Your task to perform on an android device: turn on javascript in the chrome app Image 0: 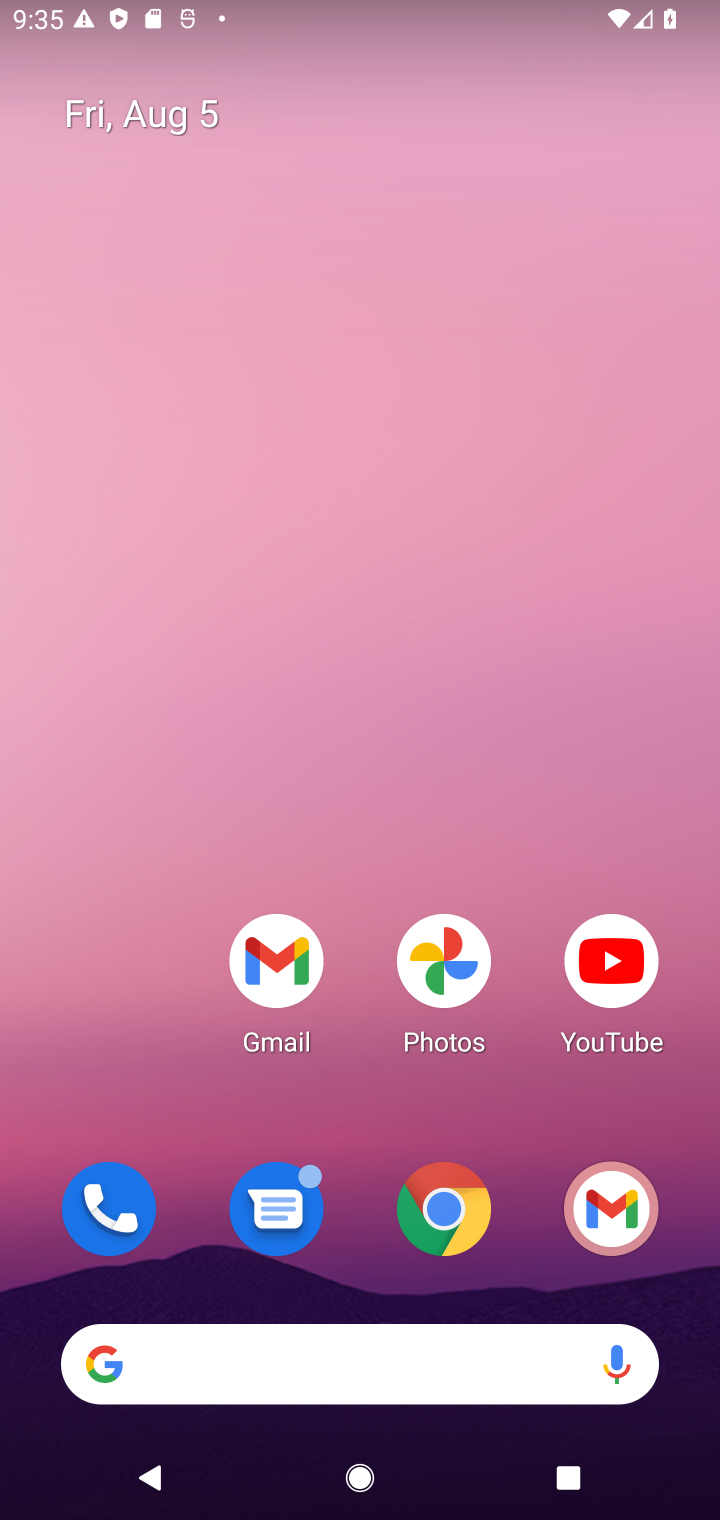
Step 0: drag from (393, 754) to (396, 663)
Your task to perform on an android device: turn on javascript in the chrome app Image 1: 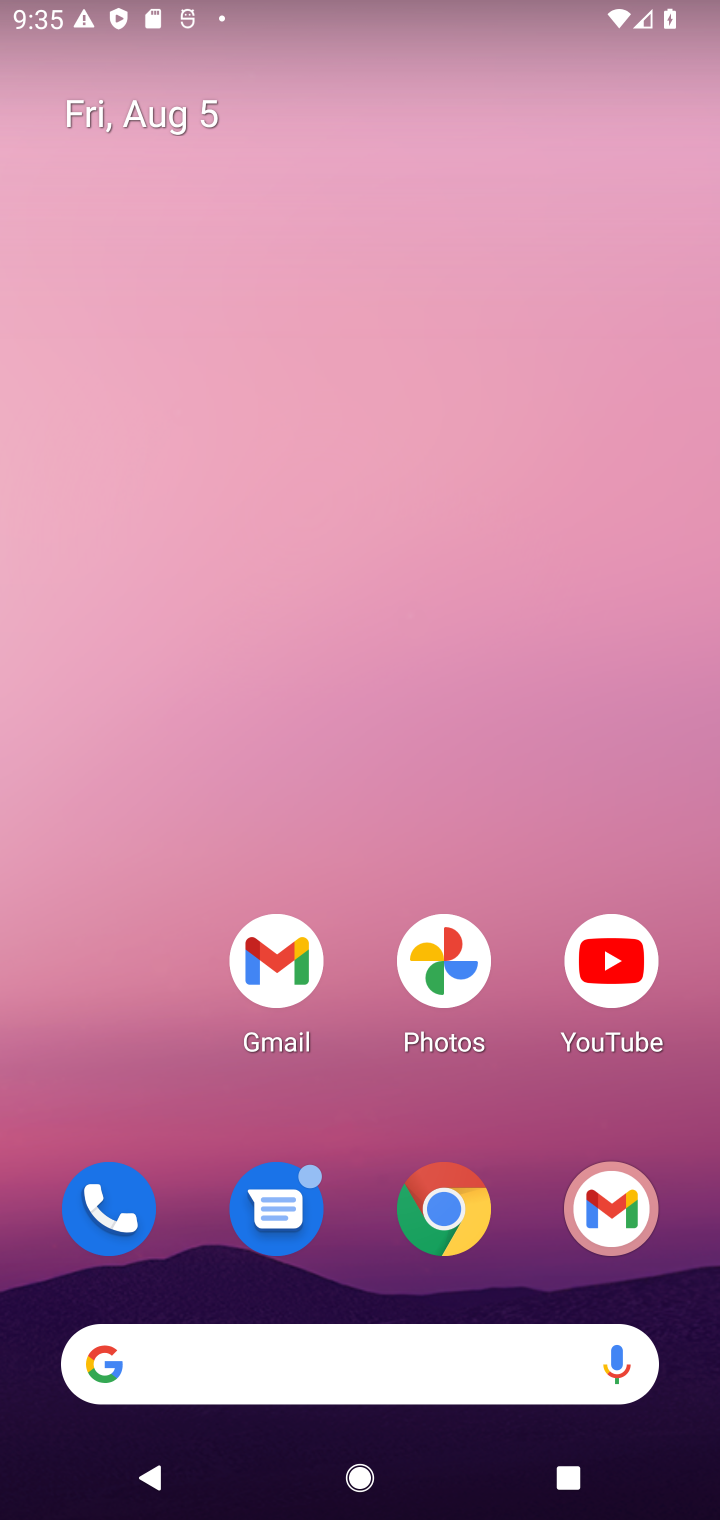
Step 1: click (403, 1222)
Your task to perform on an android device: turn on javascript in the chrome app Image 2: 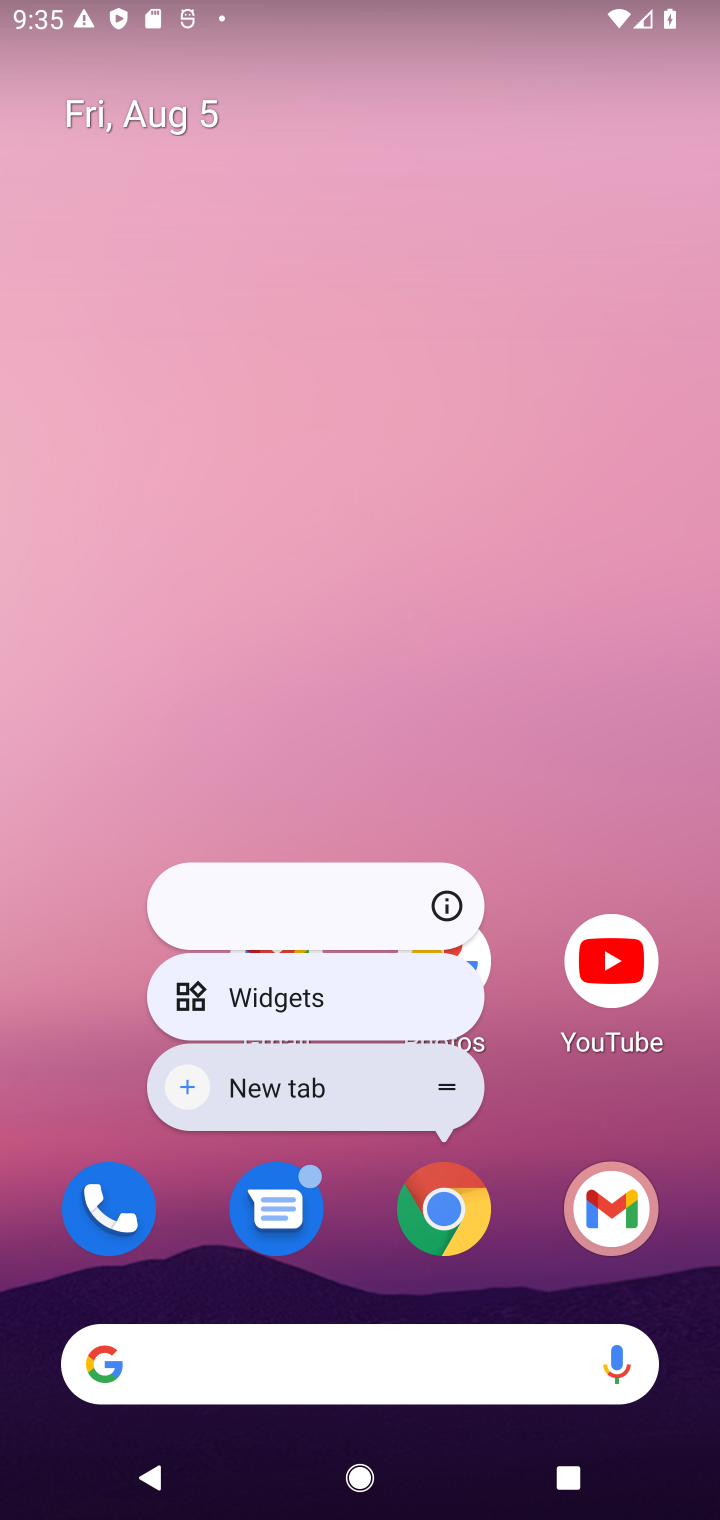
Step 2: click (442, 918)
Your task to perform on an android device: turn on javascript in the chrome app Image 3: 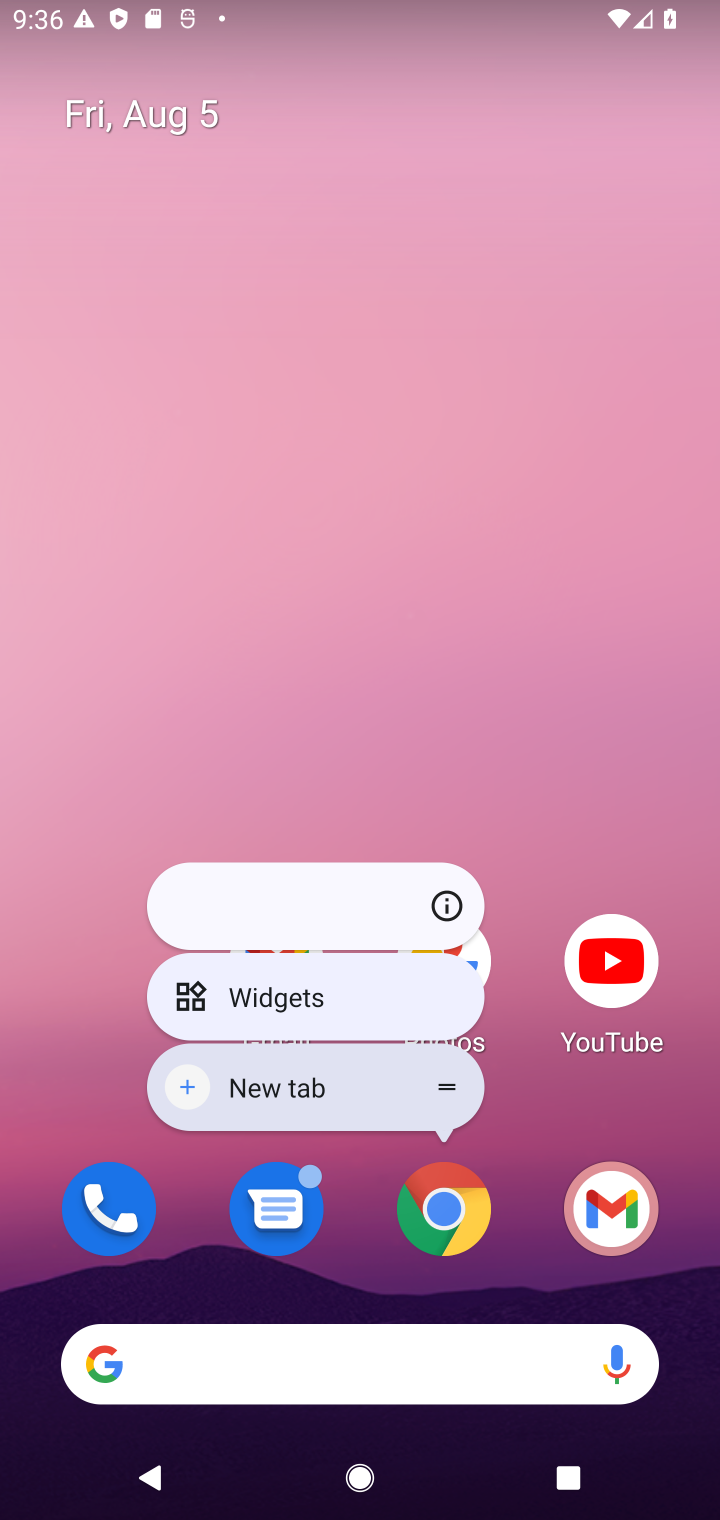
Step 3: click (451, 916)
Your task to perform on an android device: turn on javascript in the chrome app Image 4: 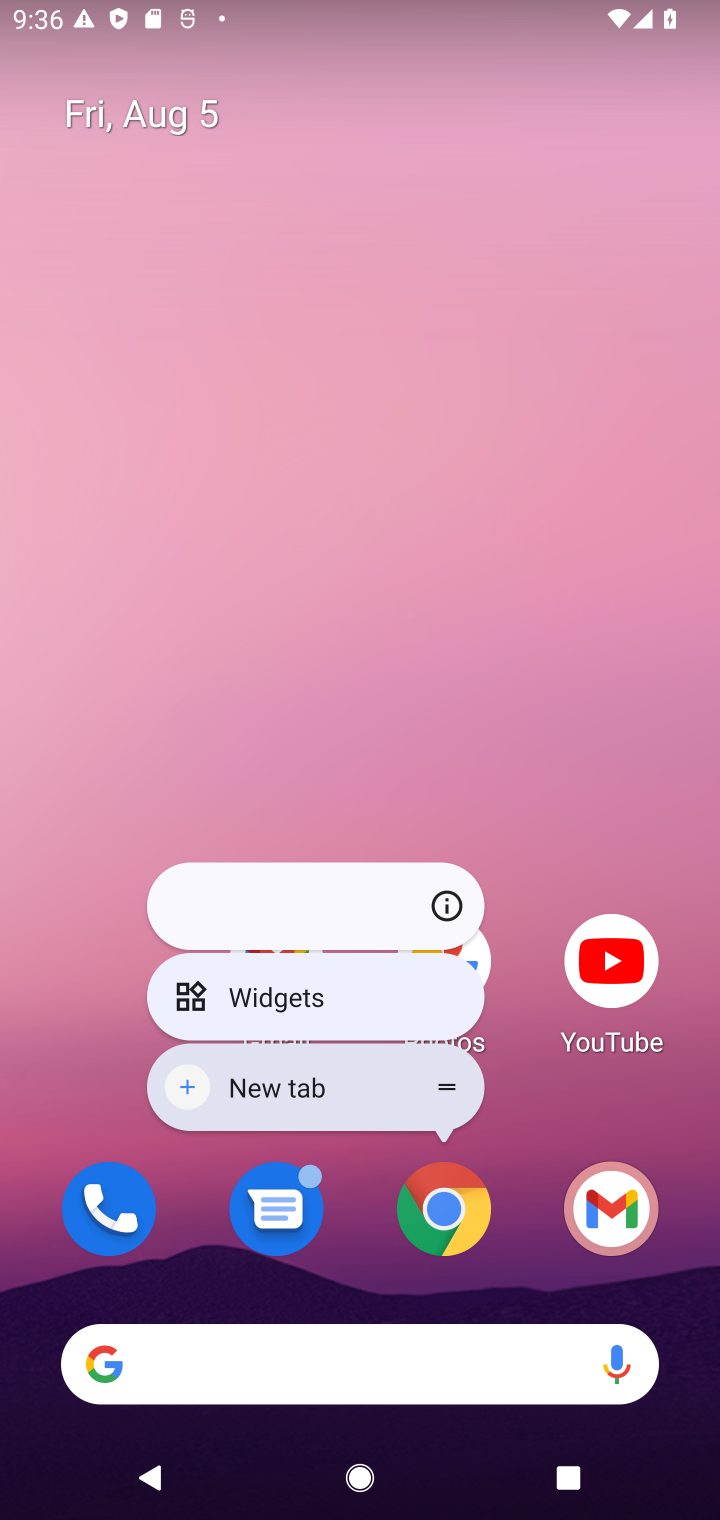
Step 4: click (440, 911)
Your task to perform on an android device: turn on javascript in the chrome app Image 5: 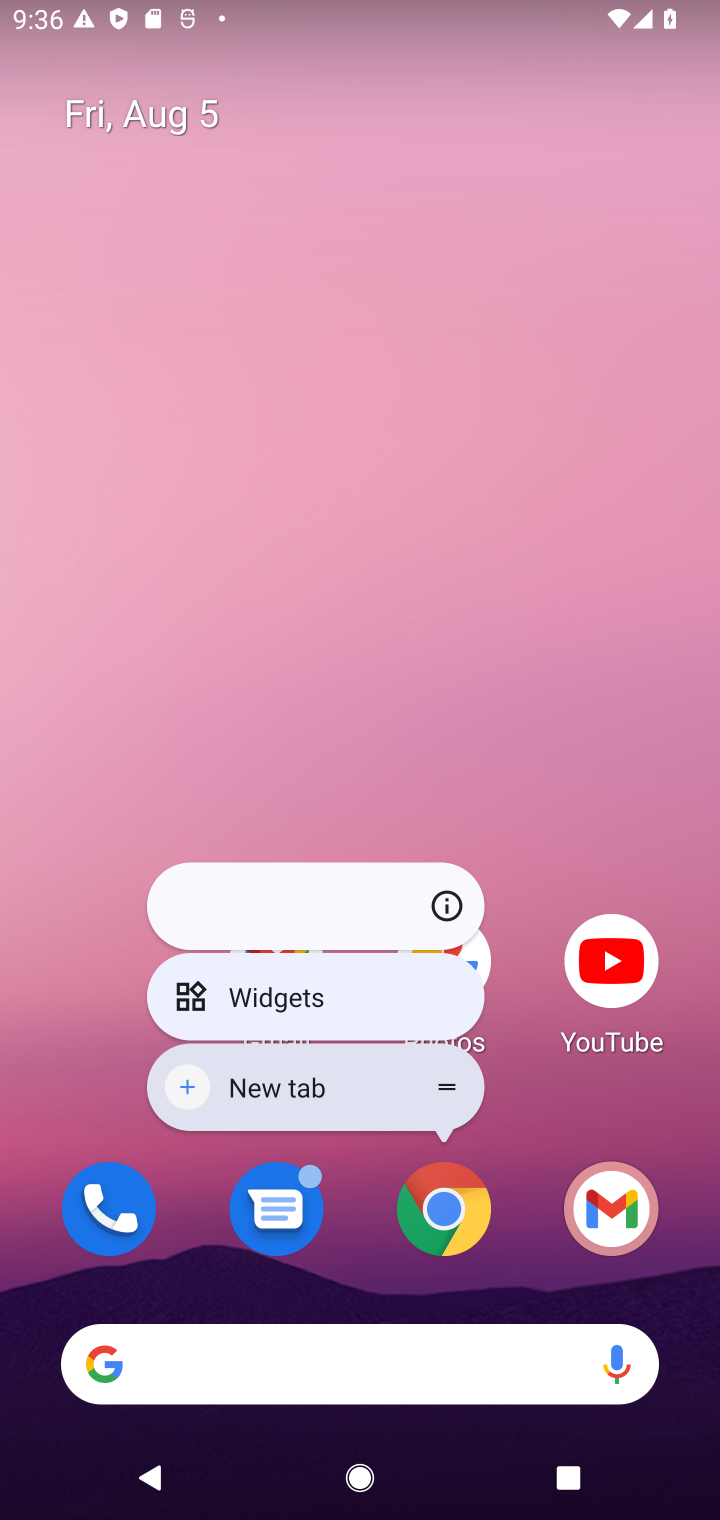
Step 5: click (437, 901)
Your task to perform on an android device: turn on javascript in the chrome app Image 6: 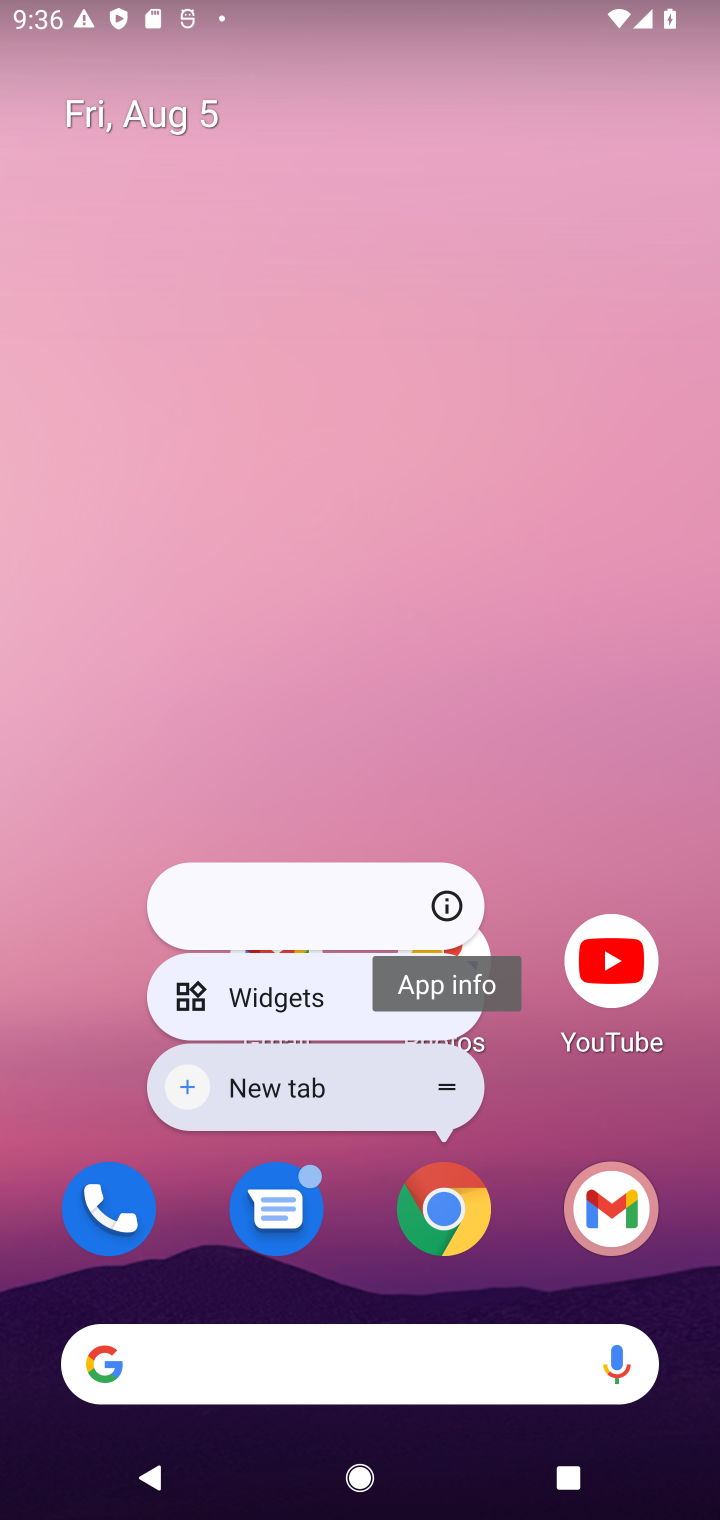
Step 6: click (439, 903)
Your task to perform on an android device: turn on javascript in the chrome app Image 7: 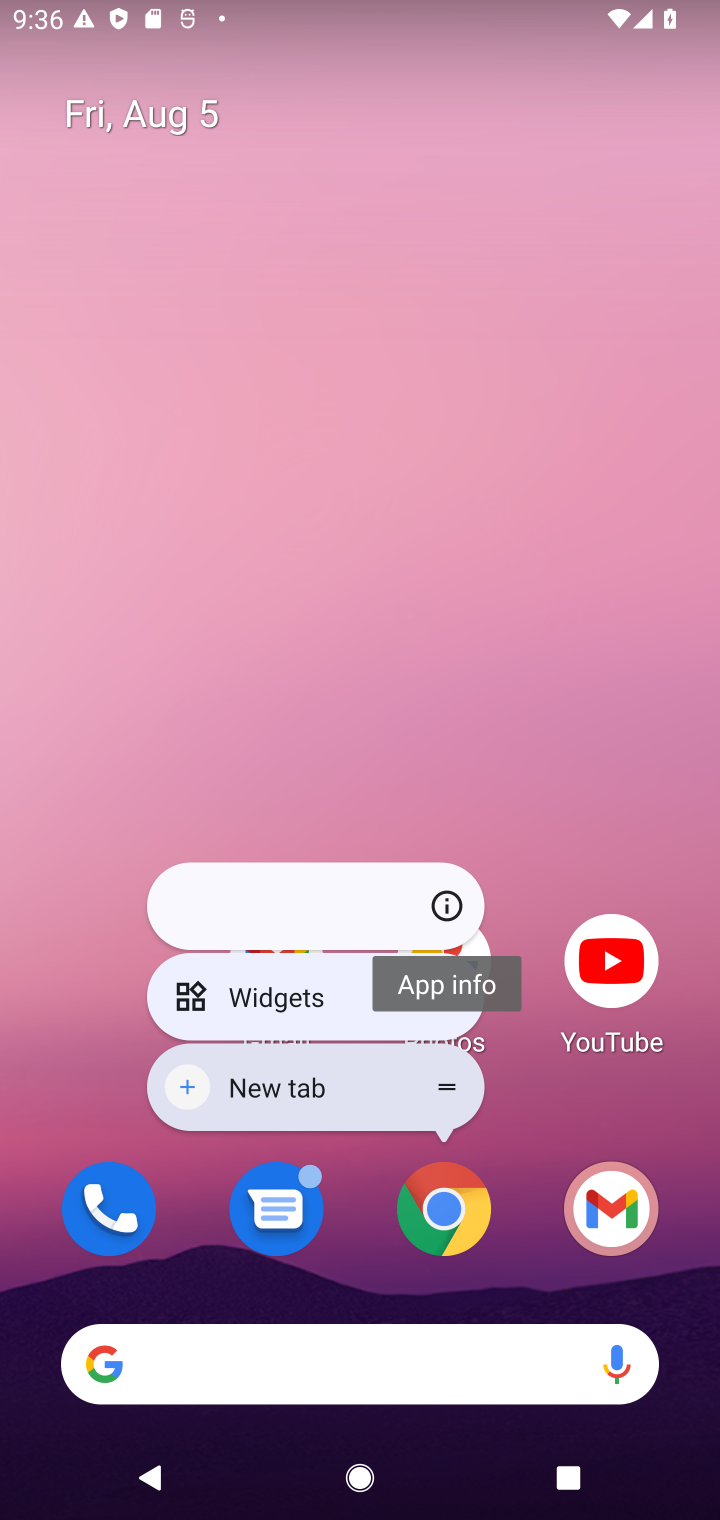
Step 7: click (439, 903)
Your task to perform on an android device: turn on javascript in the chrome app Image 8: 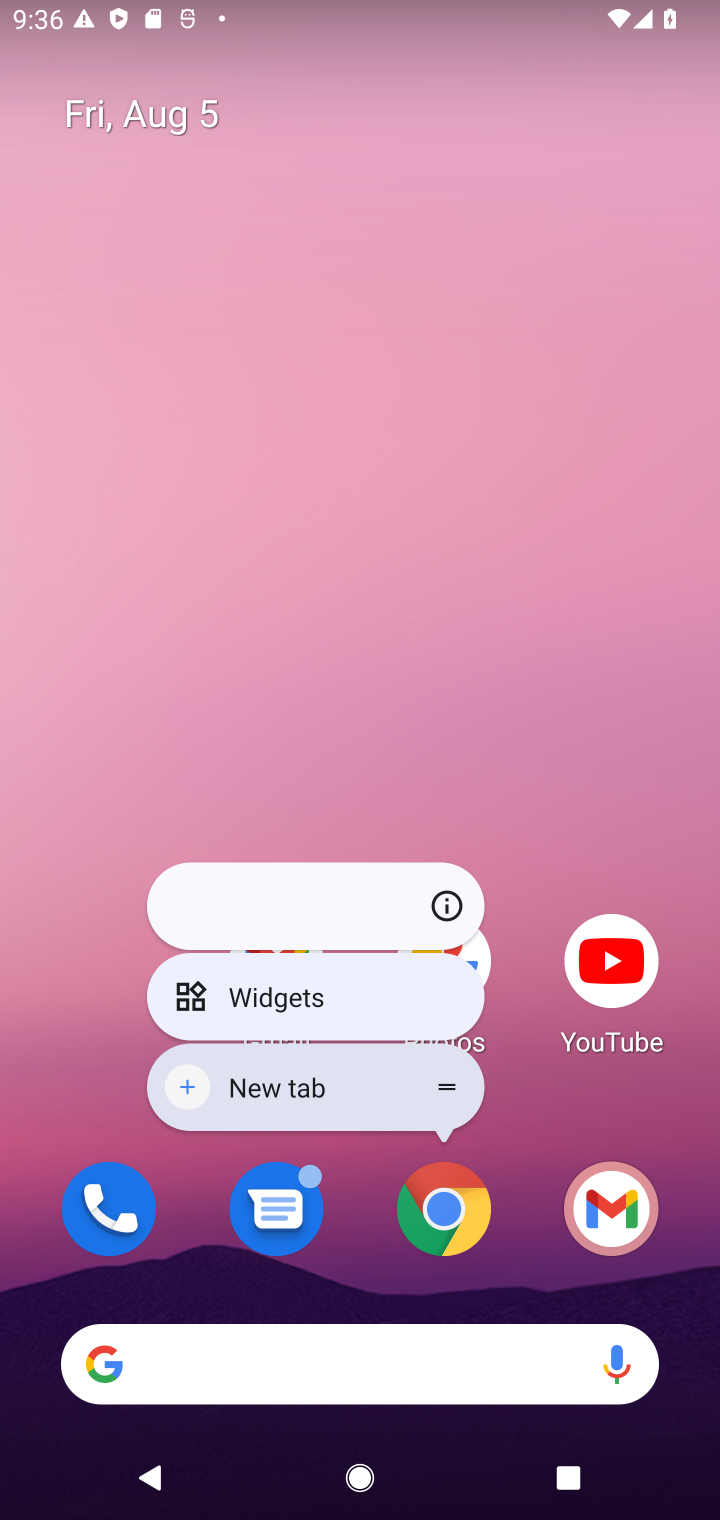
Step 8: click (439, 903)
Your task to perform on an android device: turn on javascript in the chrome app Image 9: 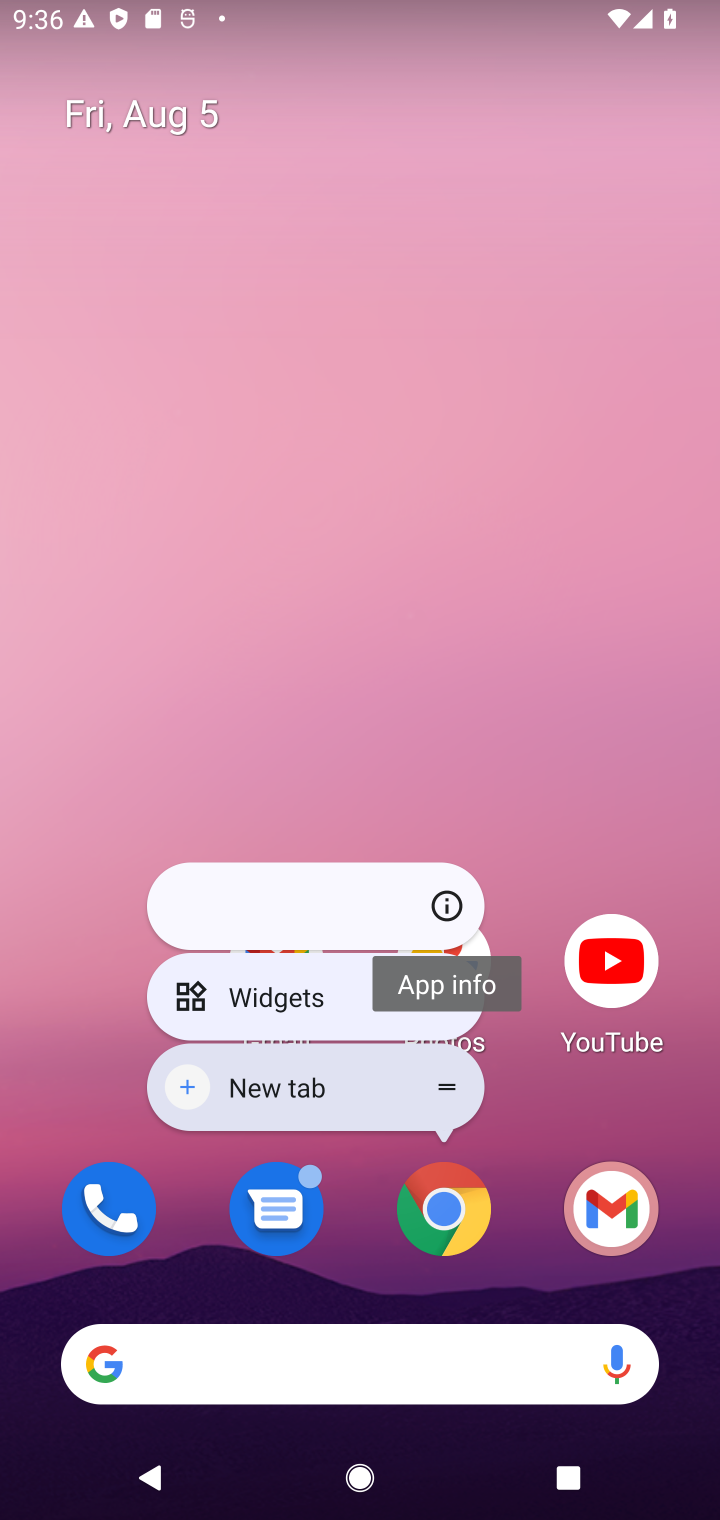
Step 9: click (452, 895)
Your task to perform on an android device: turn on javascript in the chrome app Image 10: 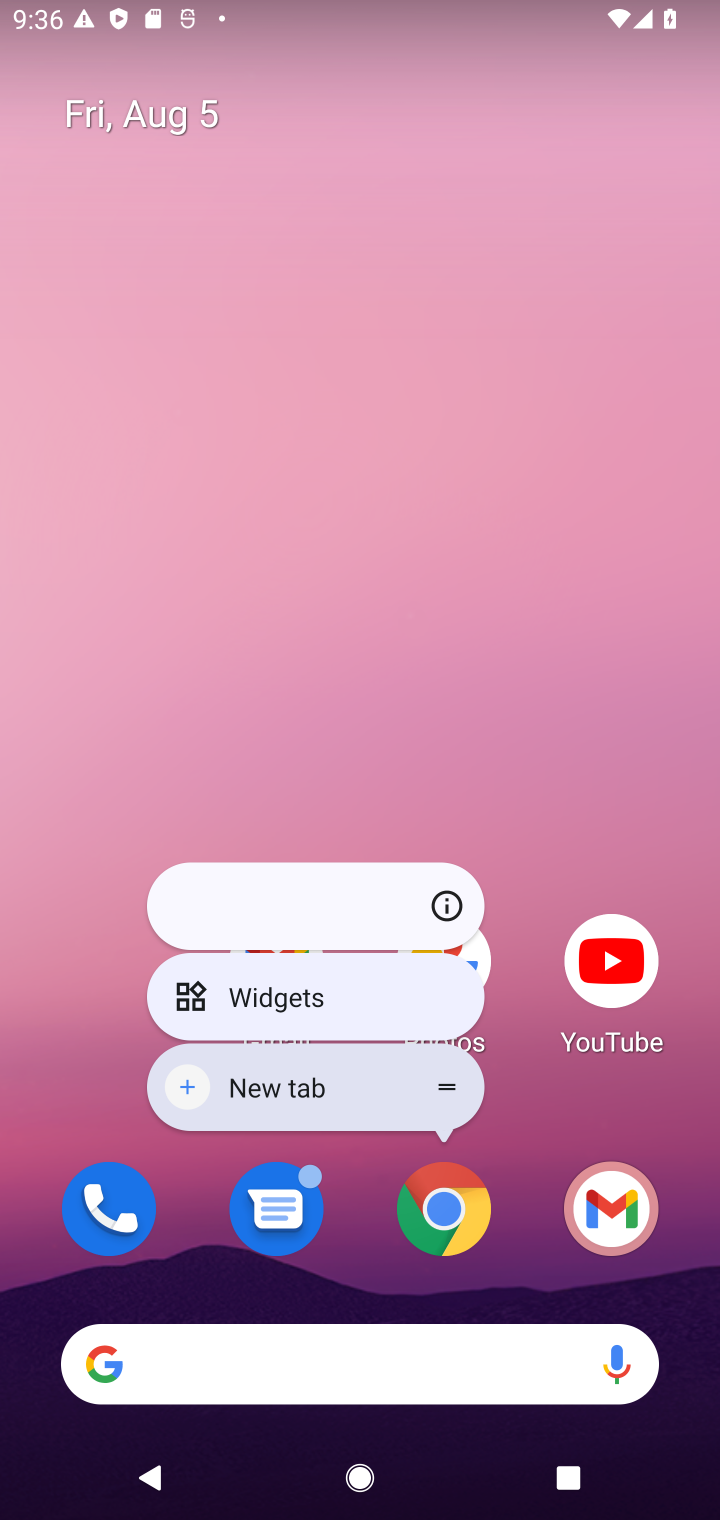
Step 10: click (439, 895)
Your task to perform on an android device: turn on javascript in the chrome app Image 11: 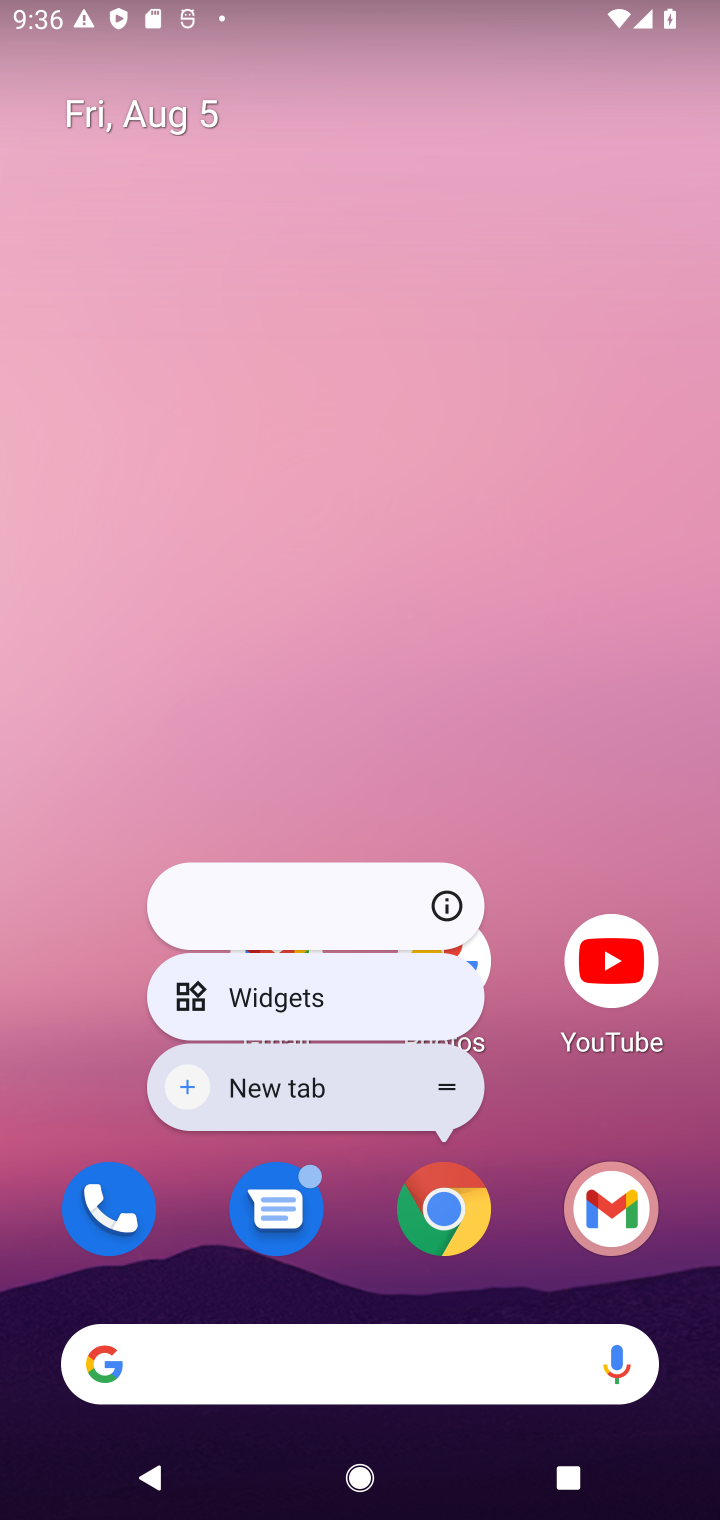
Step 11: click (461, 894)
Your task to perform on an android device: turn on javascript in the chrome app Image 12: 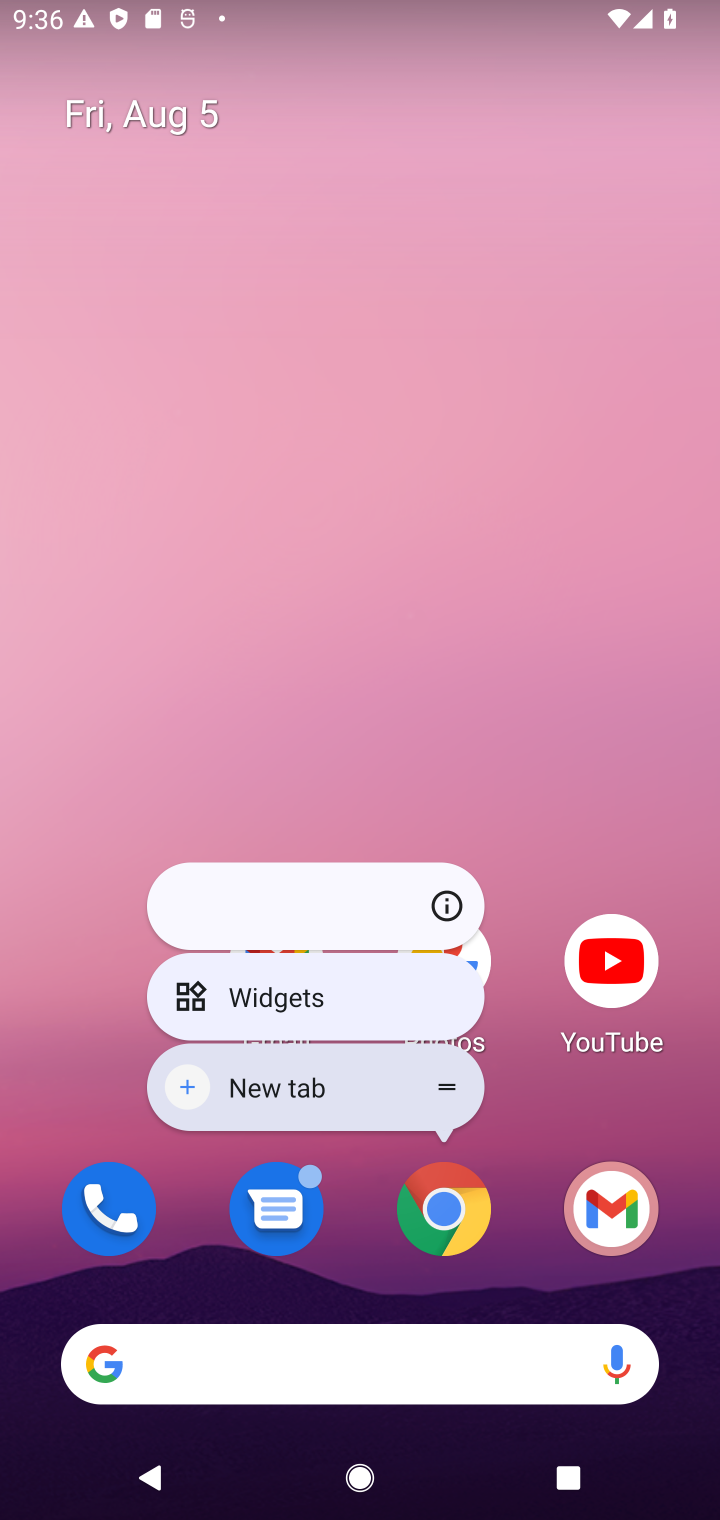
Step 12: click (453, 892)
Your task to perform on an android device: turn on javascript in the chrome app Image 13: 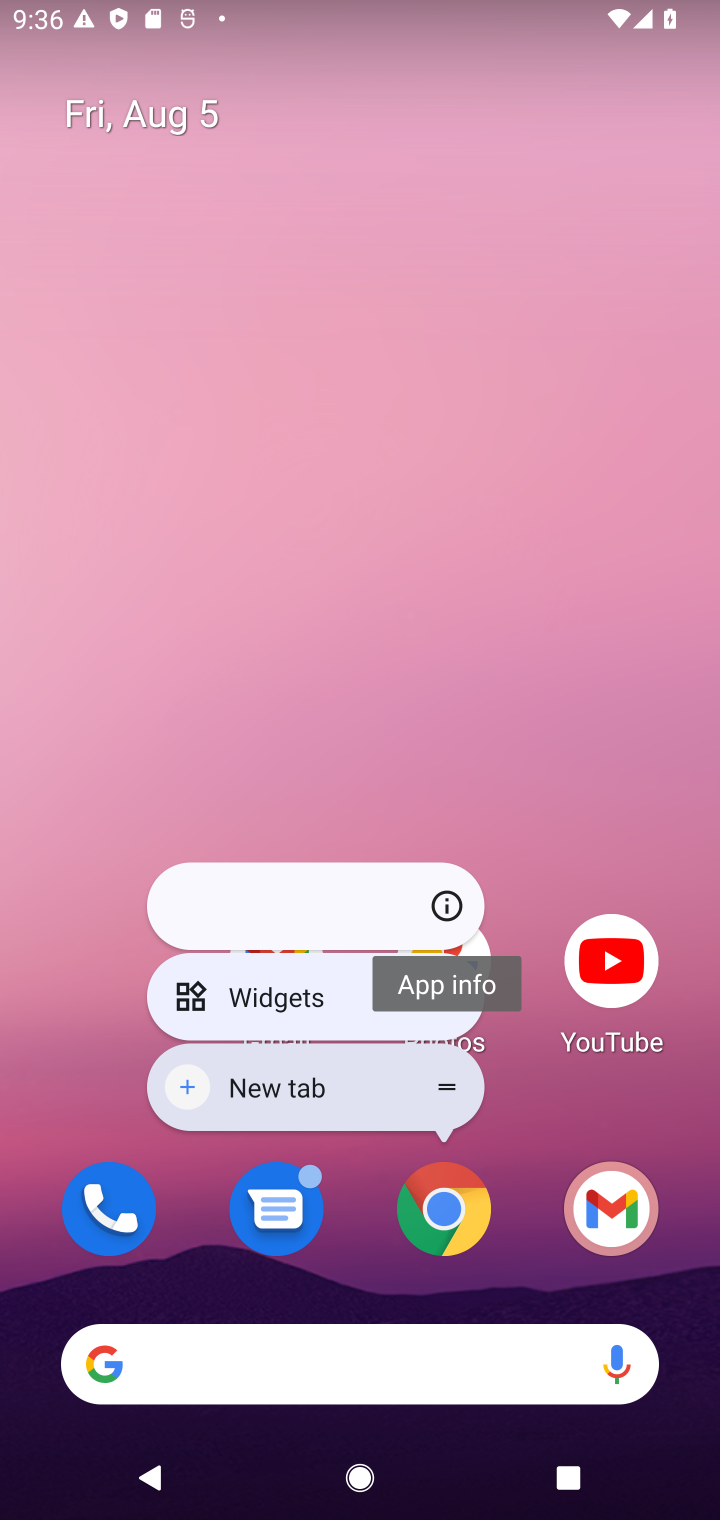
Step 13: click (446, 892)
Your task to perform on an android device: turn on javascript in the chrome app Image 14: 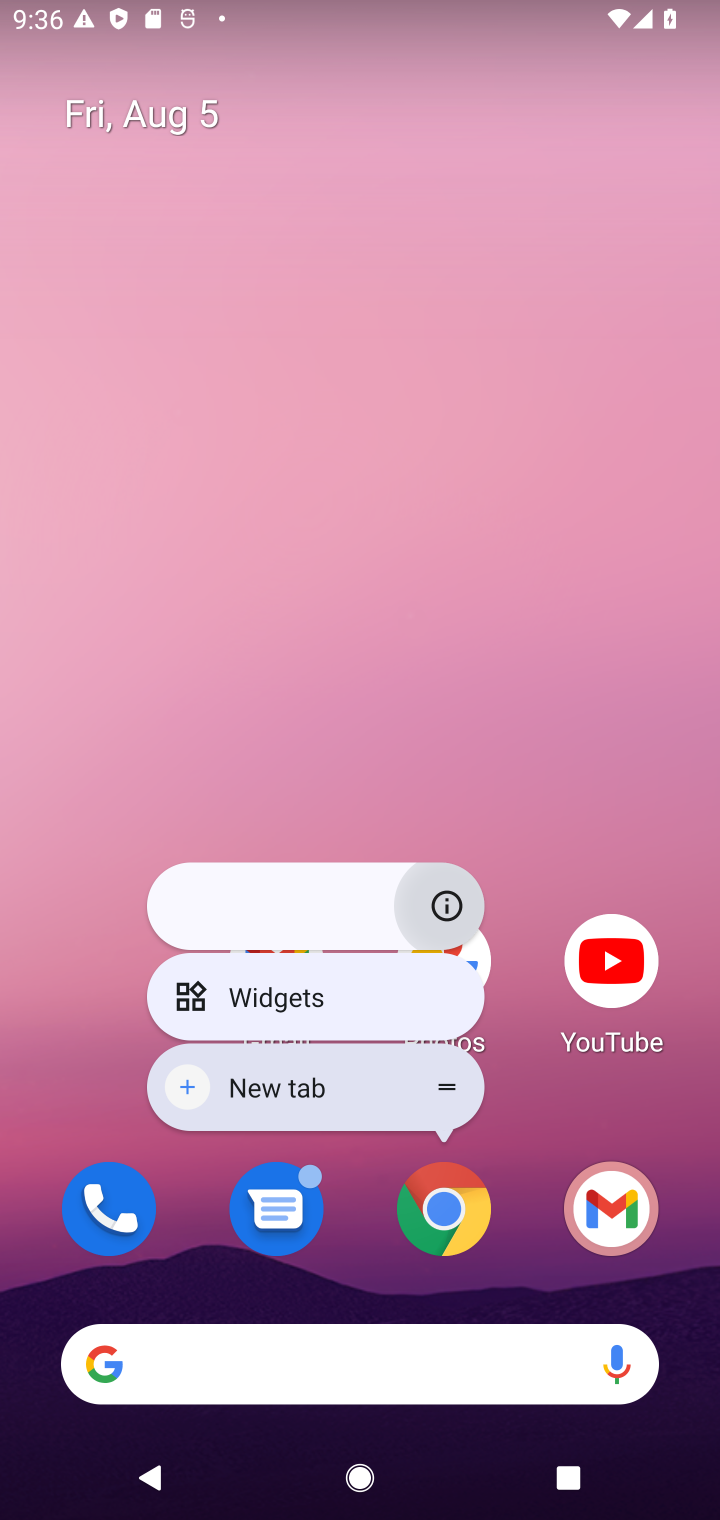
Step 14: click (429, 1200)
Your task to perform on an android device: turn on javascript in the chrome app Image 15: 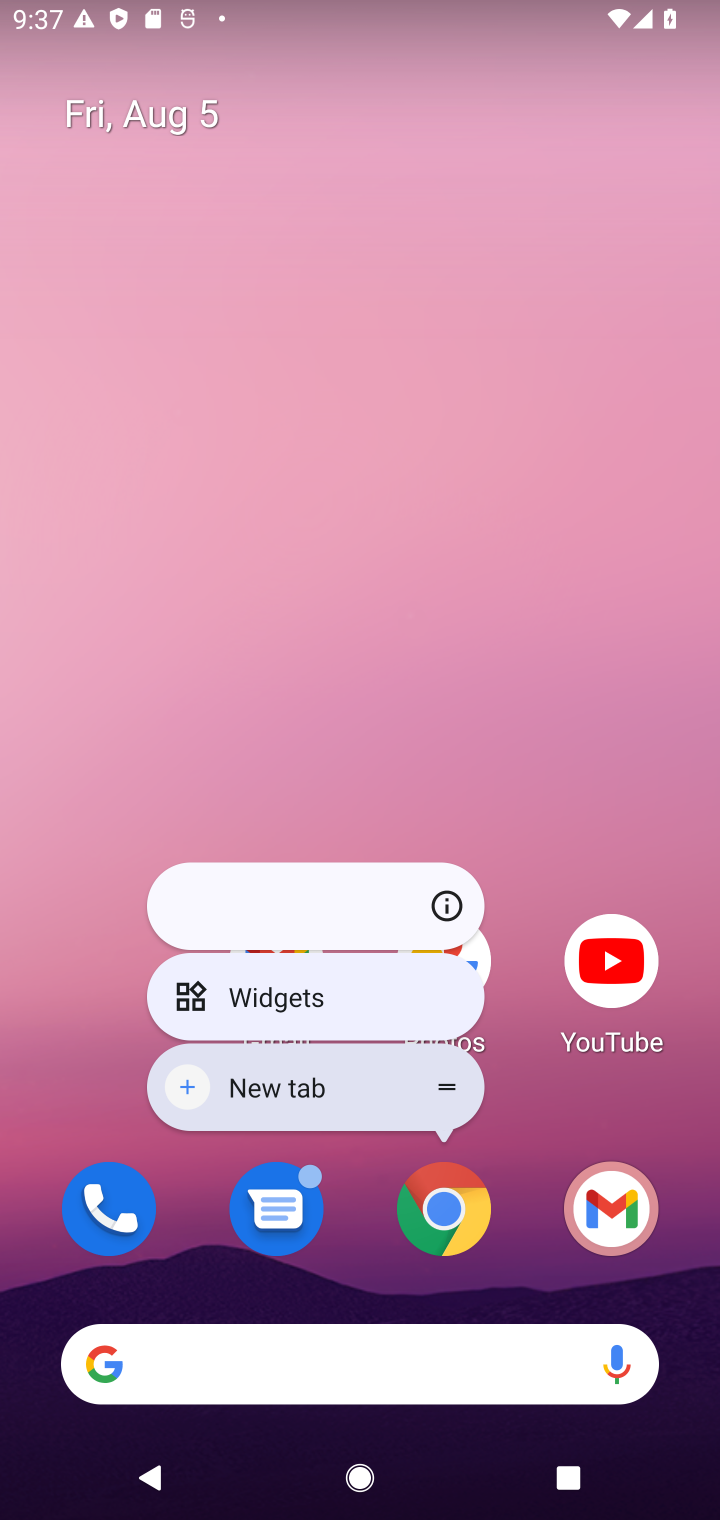
Step 15: click (446, 1189)
Your task to perform on an android device: turn on javascript in the chrome app Image 16: 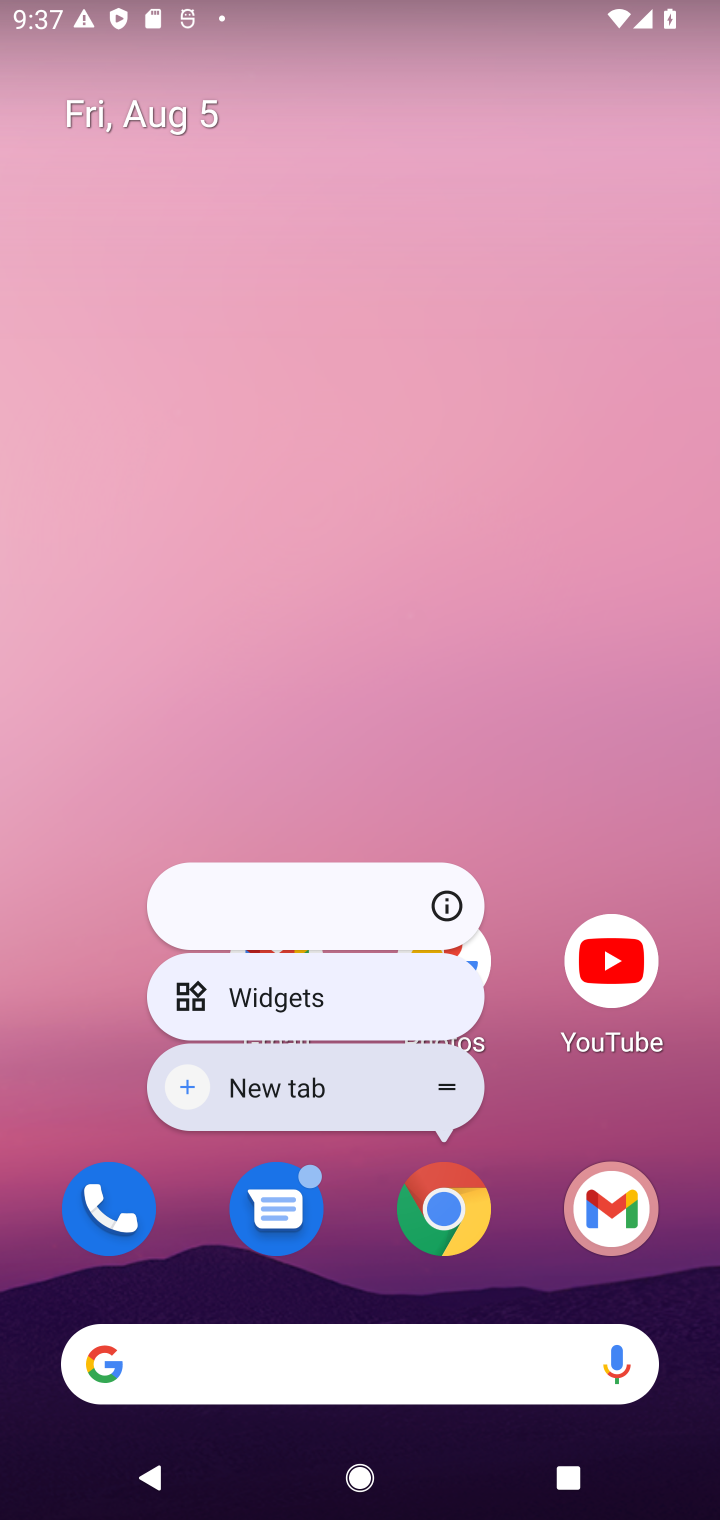
Step 16: click (448, 1185)
Your task to perform on an android device: turn on javascript in the chrome app Image 17: 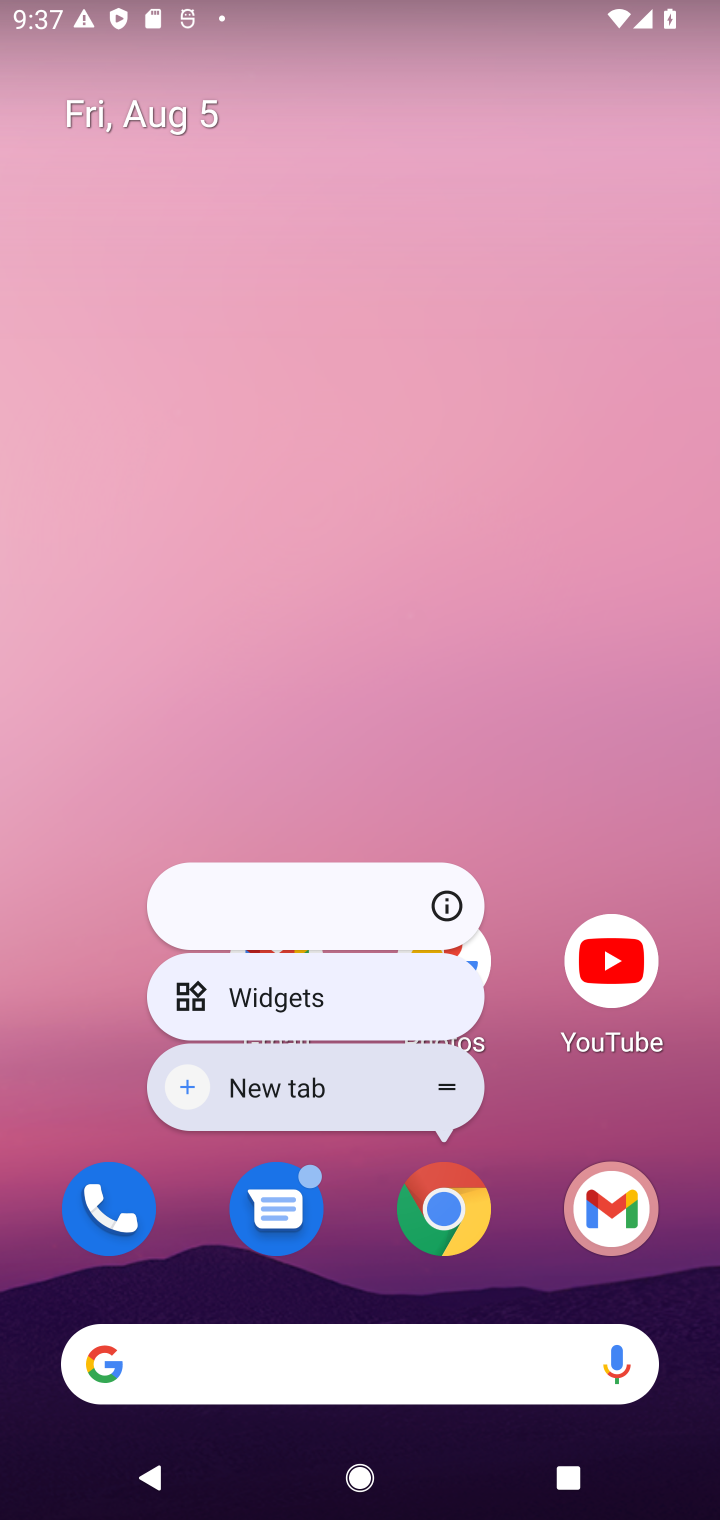
Step 17: click (459, 1207)
Your task to perform on an android device: turn on javascript in the chrome app Image 18: 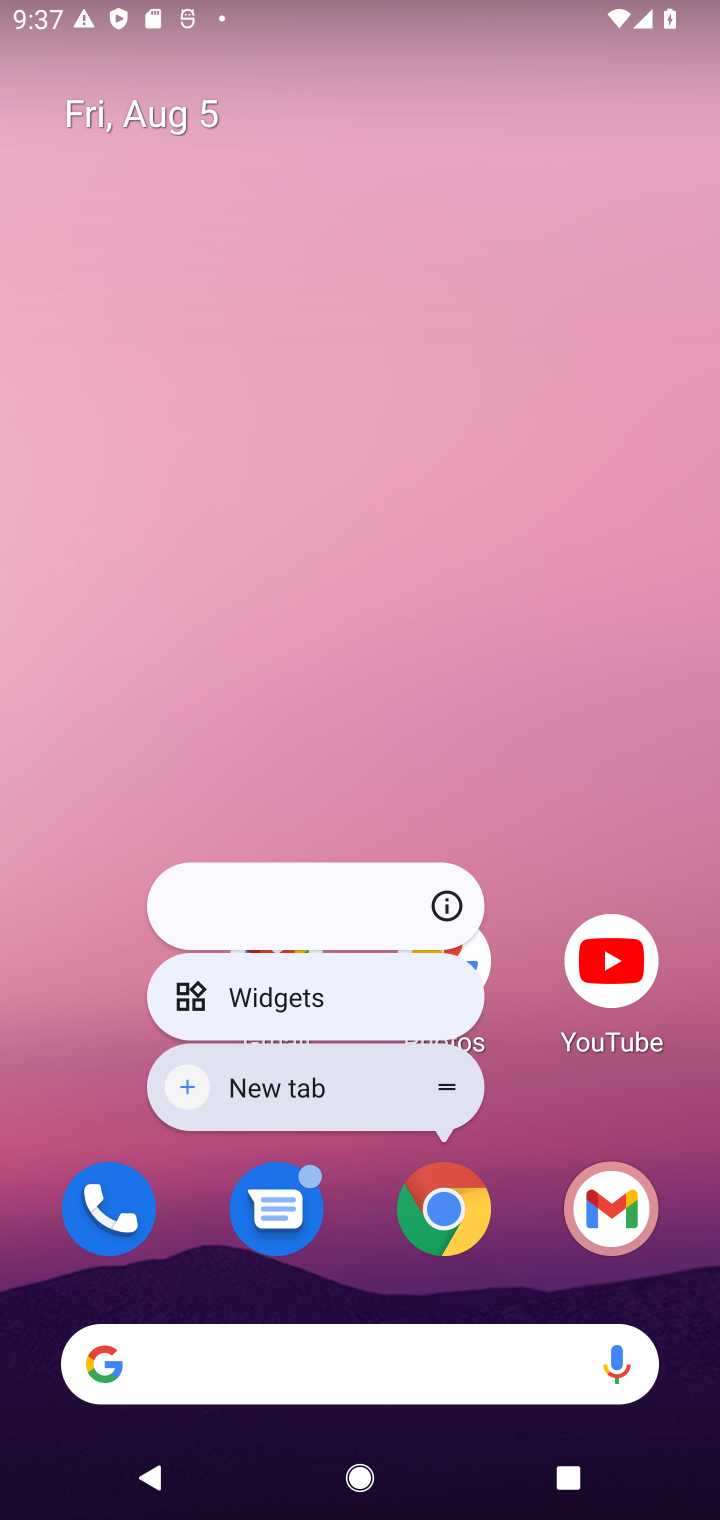
Step 18: click (451, 906)
Your task to perform on an android device: turn on javascript in the chrome app Image 19: 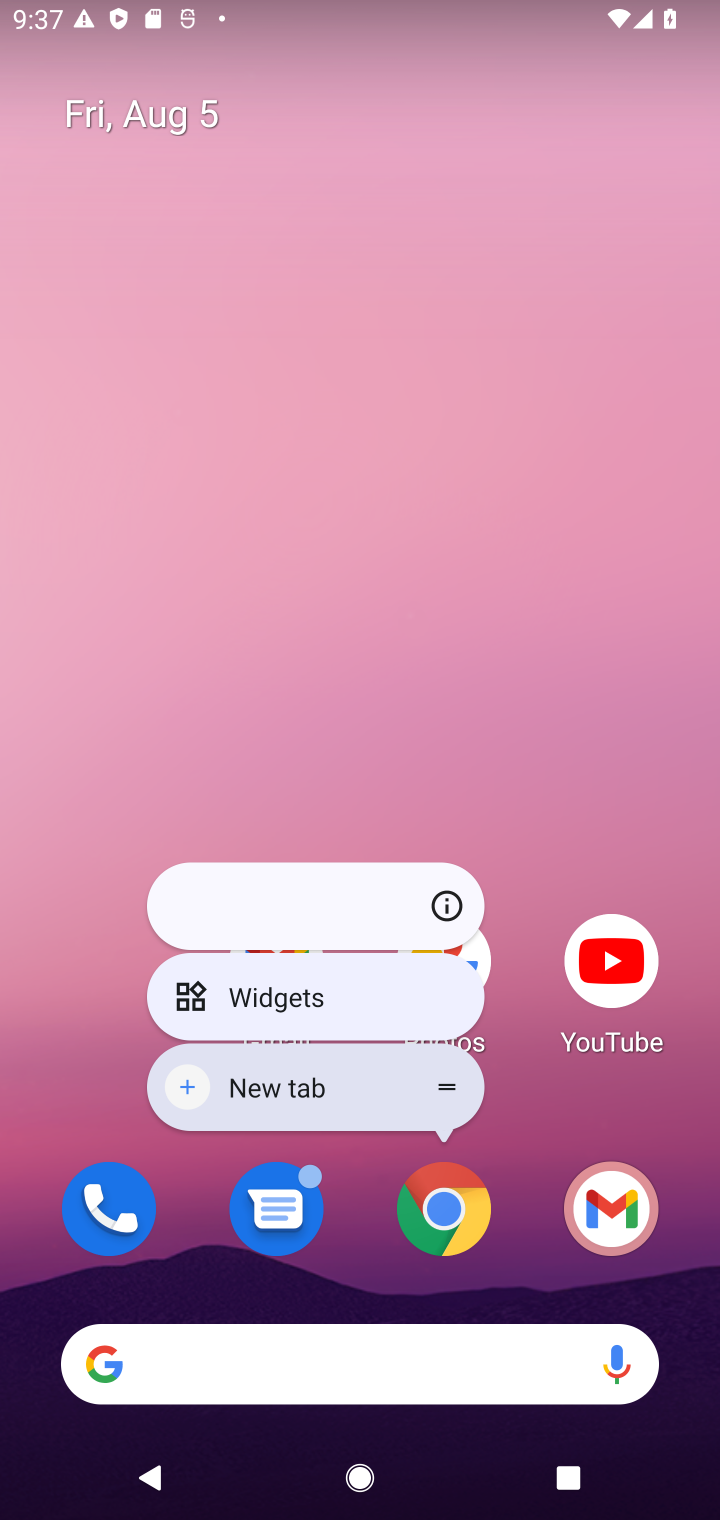
Step 19: click (449, 900)
Your task to perform on an android device: turn on javascript in the chrome app Image 20: 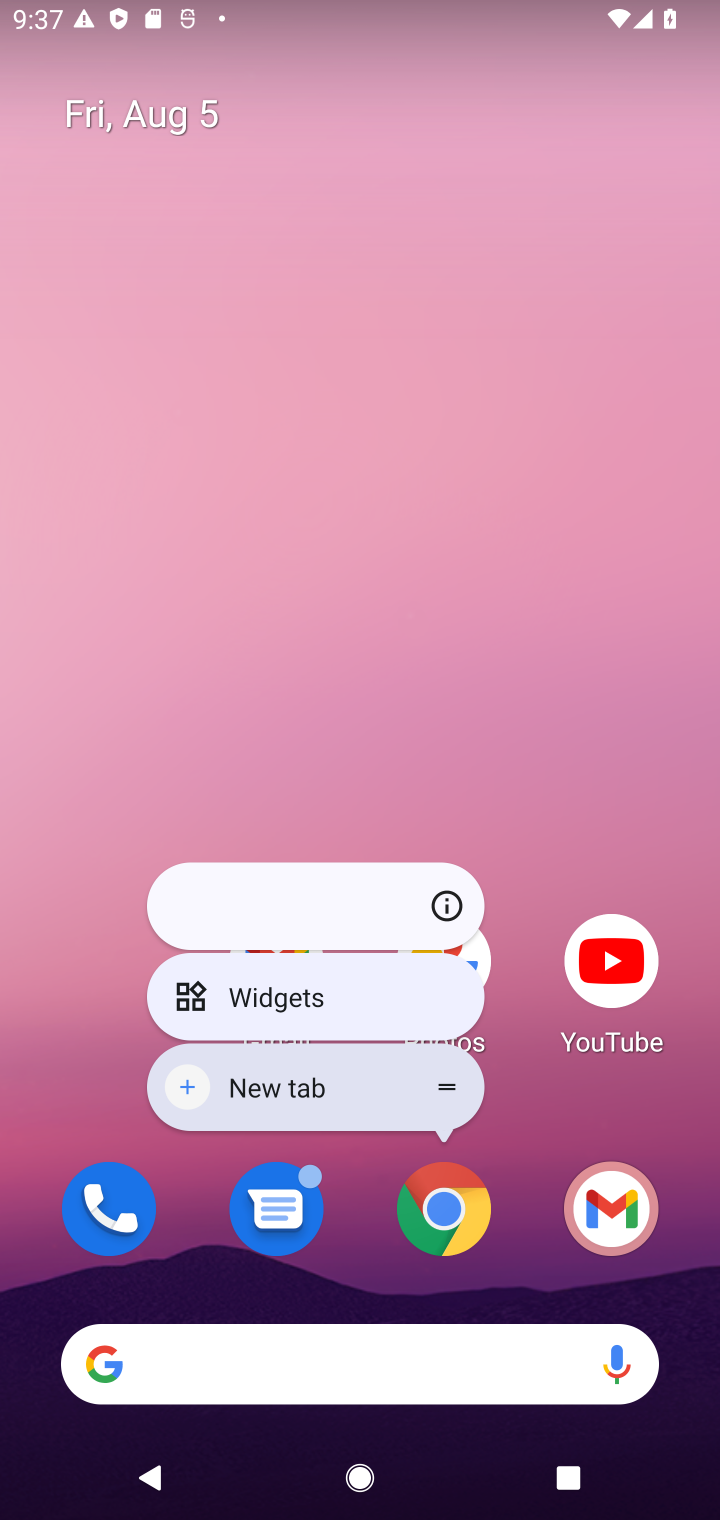
Step 20: click (440, 900)
Your task to perform on an android device: turn on javascript in the chrome app Image 21: 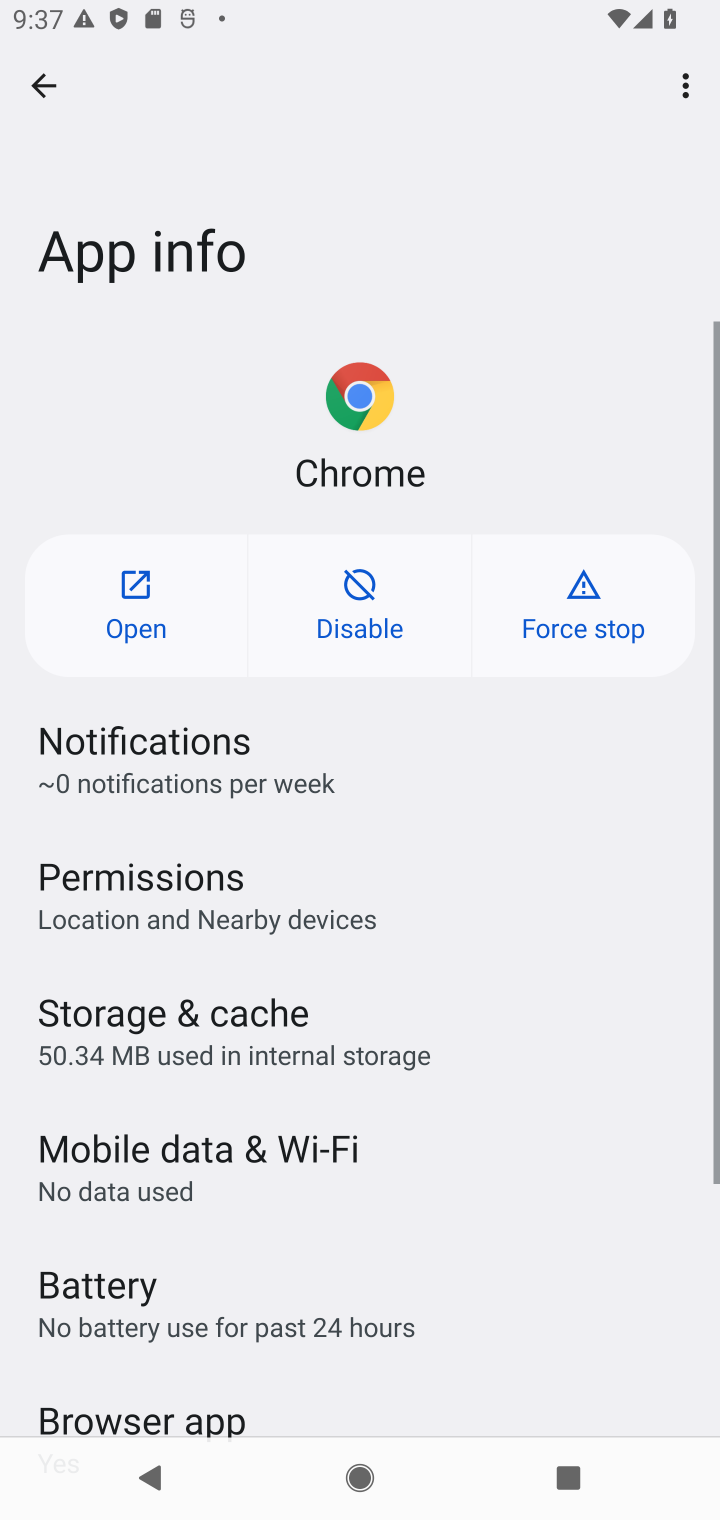
Step 21: click (139, 624)
Your task to perform on an android device: turn on javascript in the chrome app Image 22: 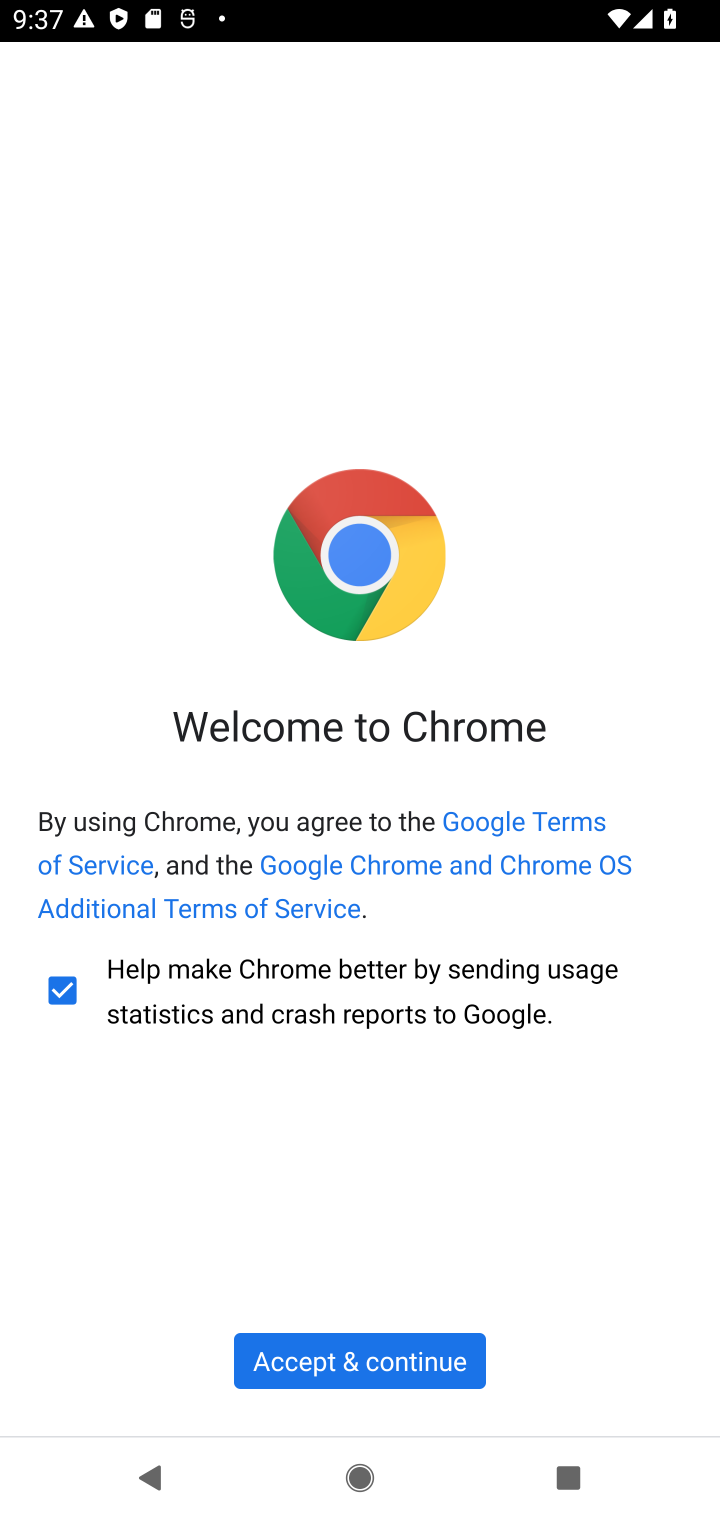
Step 22: click (314, 1349)
Your task to perform on an android device: turn on javascript in the chrome app Image 23: 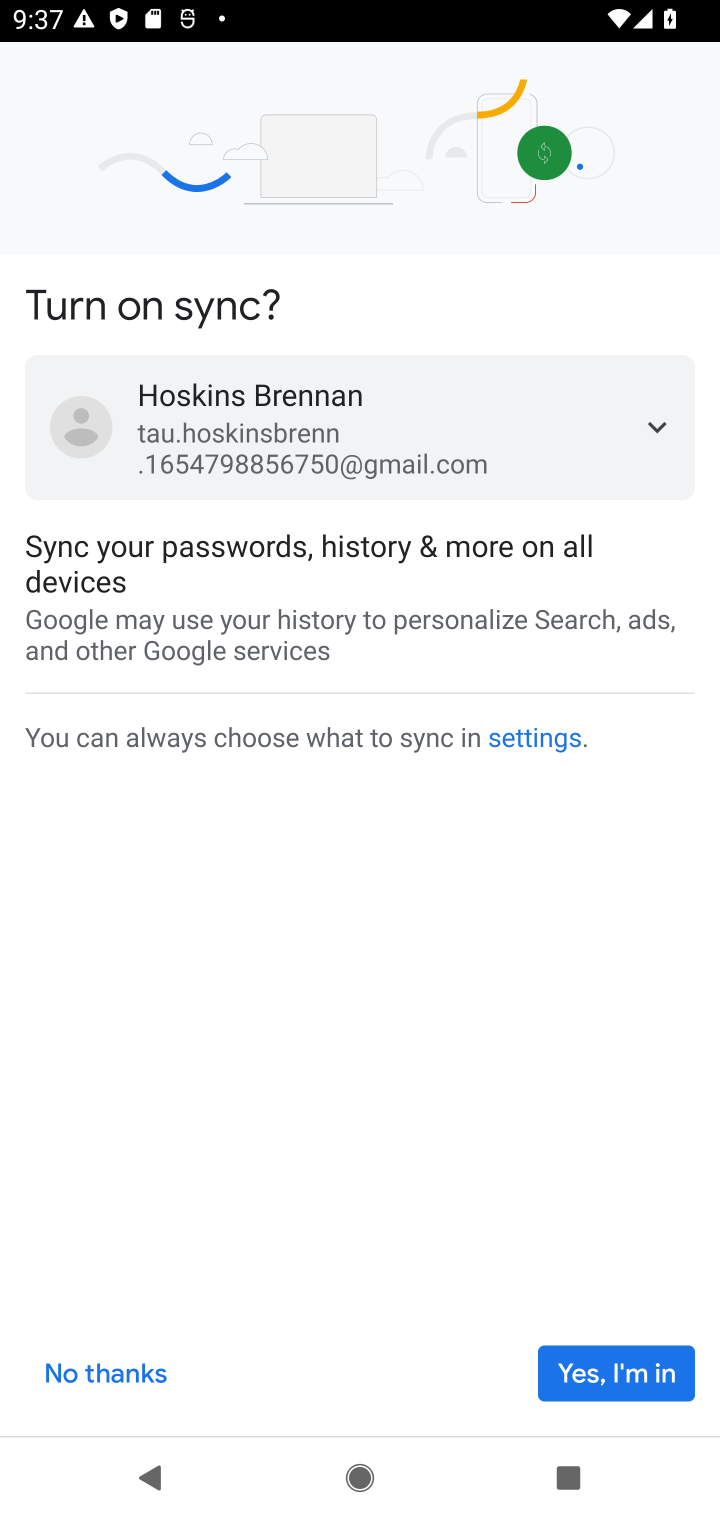
Step 23: click (618, 1375)
Your task to perform on an android device: turn on javascript in the chrome app Image 24: 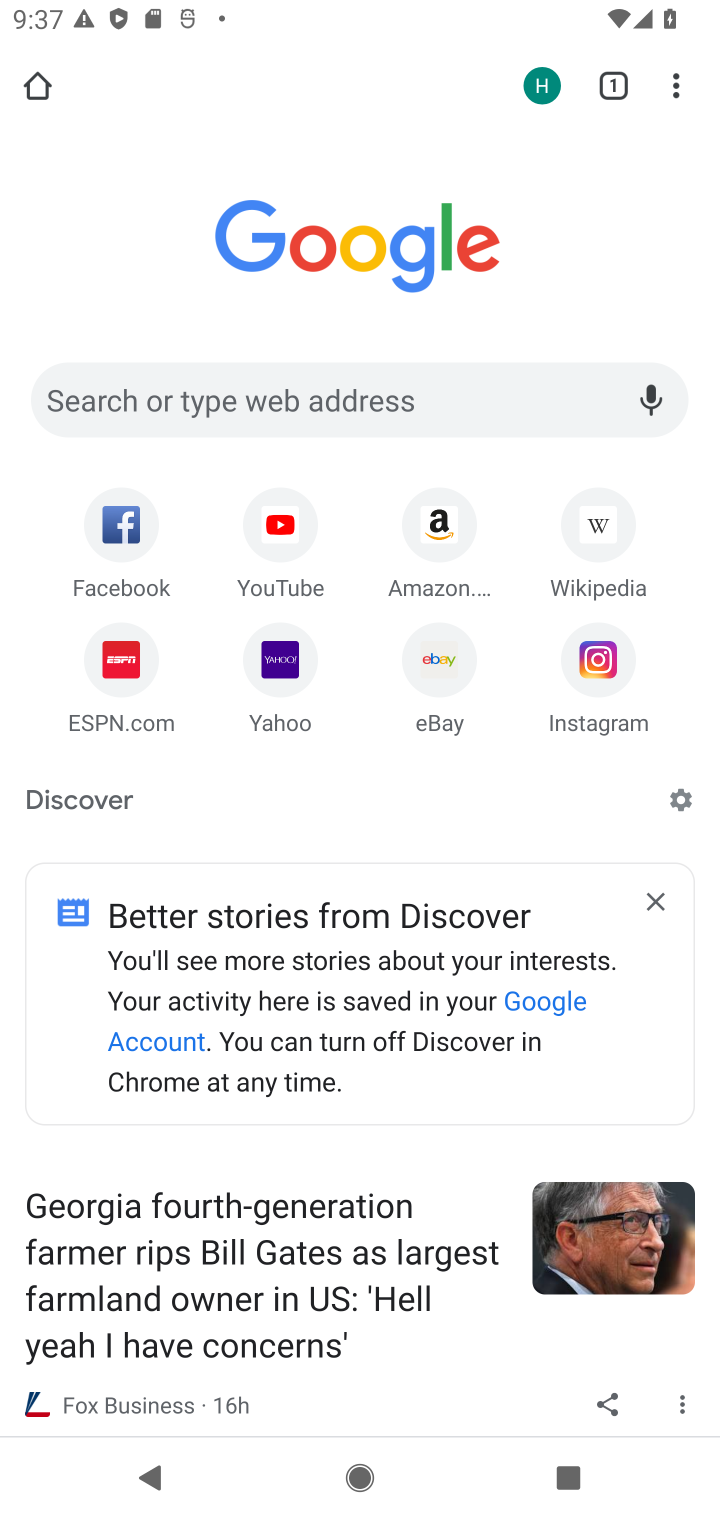
Step 24: drag from (678, 91) to (424, 738)
Your task to perform on an android device: turn on javascript in the chrome app Image 25: 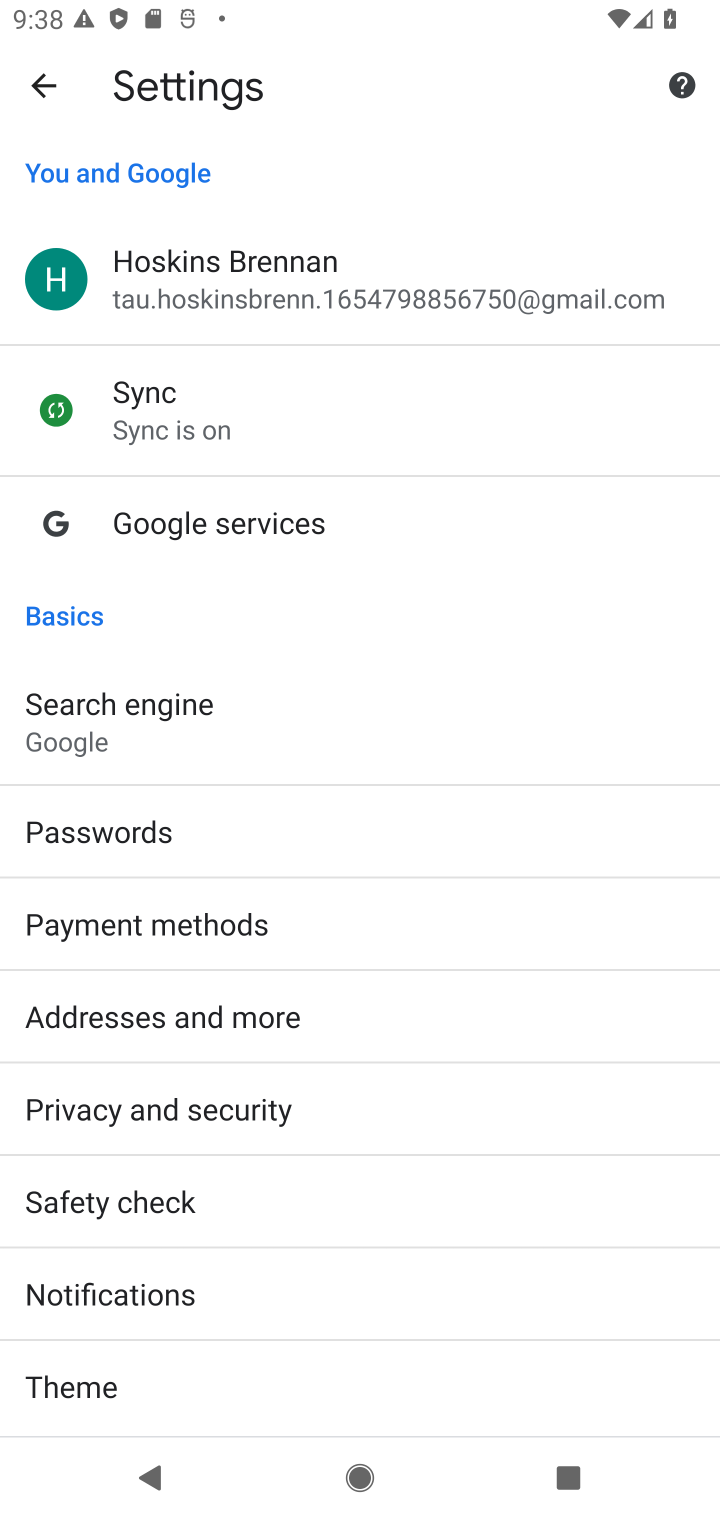
Step 25: drag from (246, 1169) to (430, 324)
Your task to perform on an android device: turn on javascript in the chrome app Image 26: 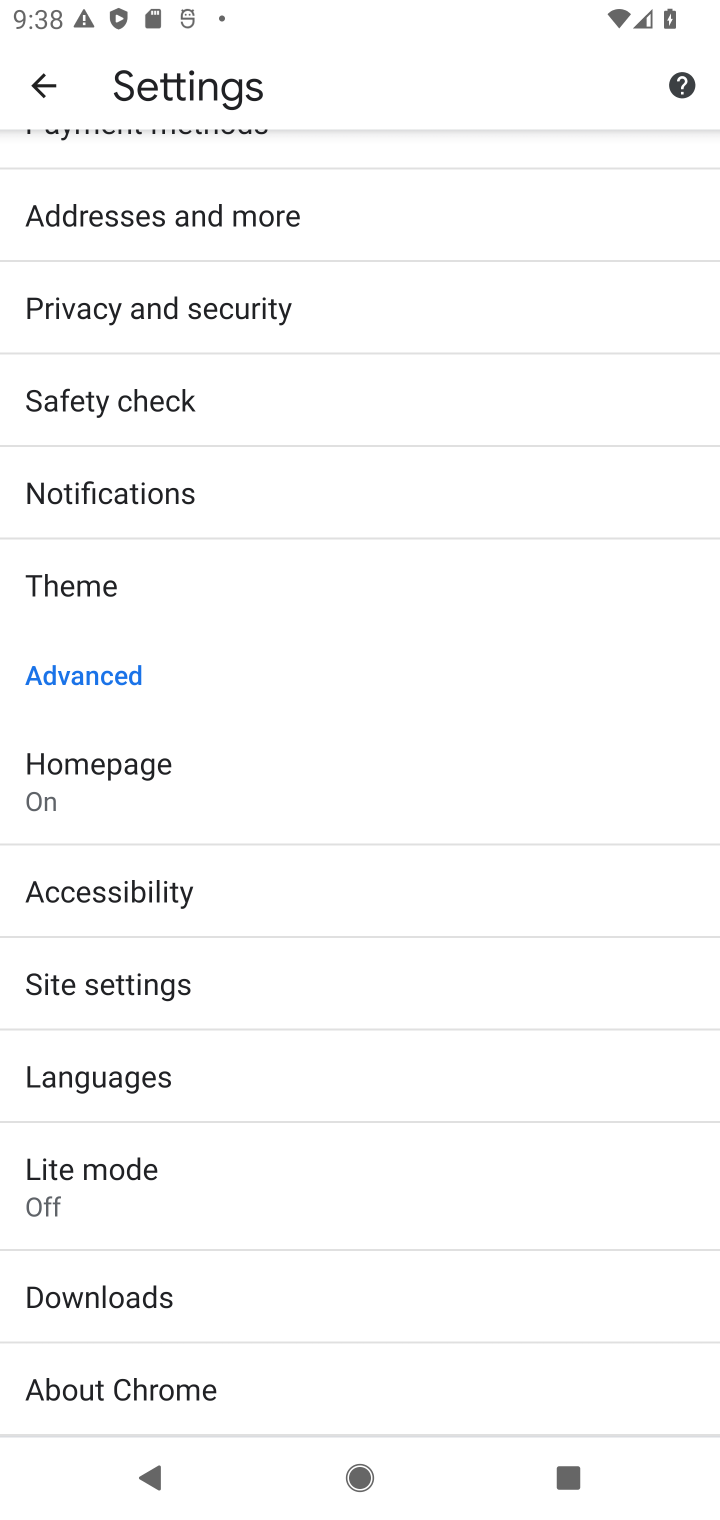
Step 26: click (197, 968)
Your task to perform on an android device: turn on javascript in the chrome app Image 27: 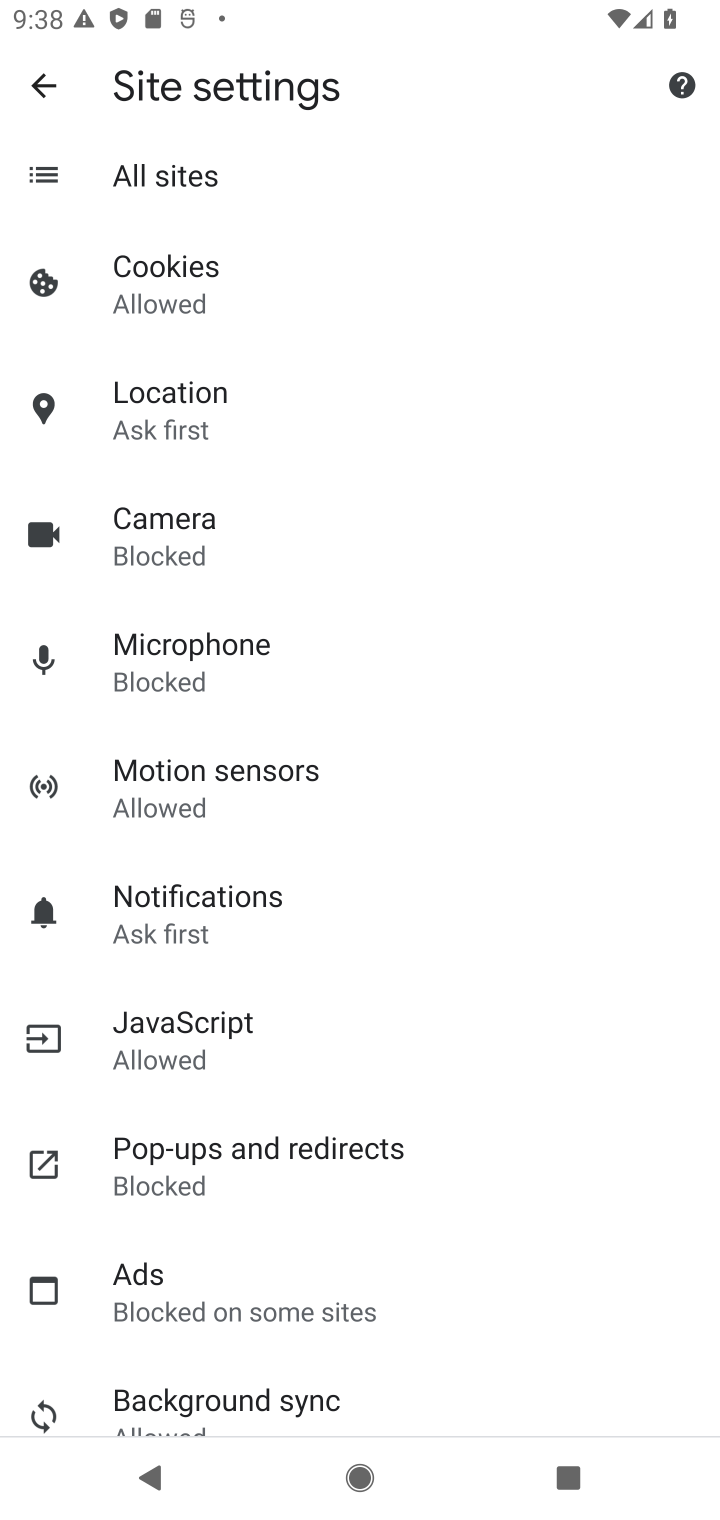
Step 27: click (183, 1015)
Your task to perform on an android device: turn on javascript in the chrome app Image 28: 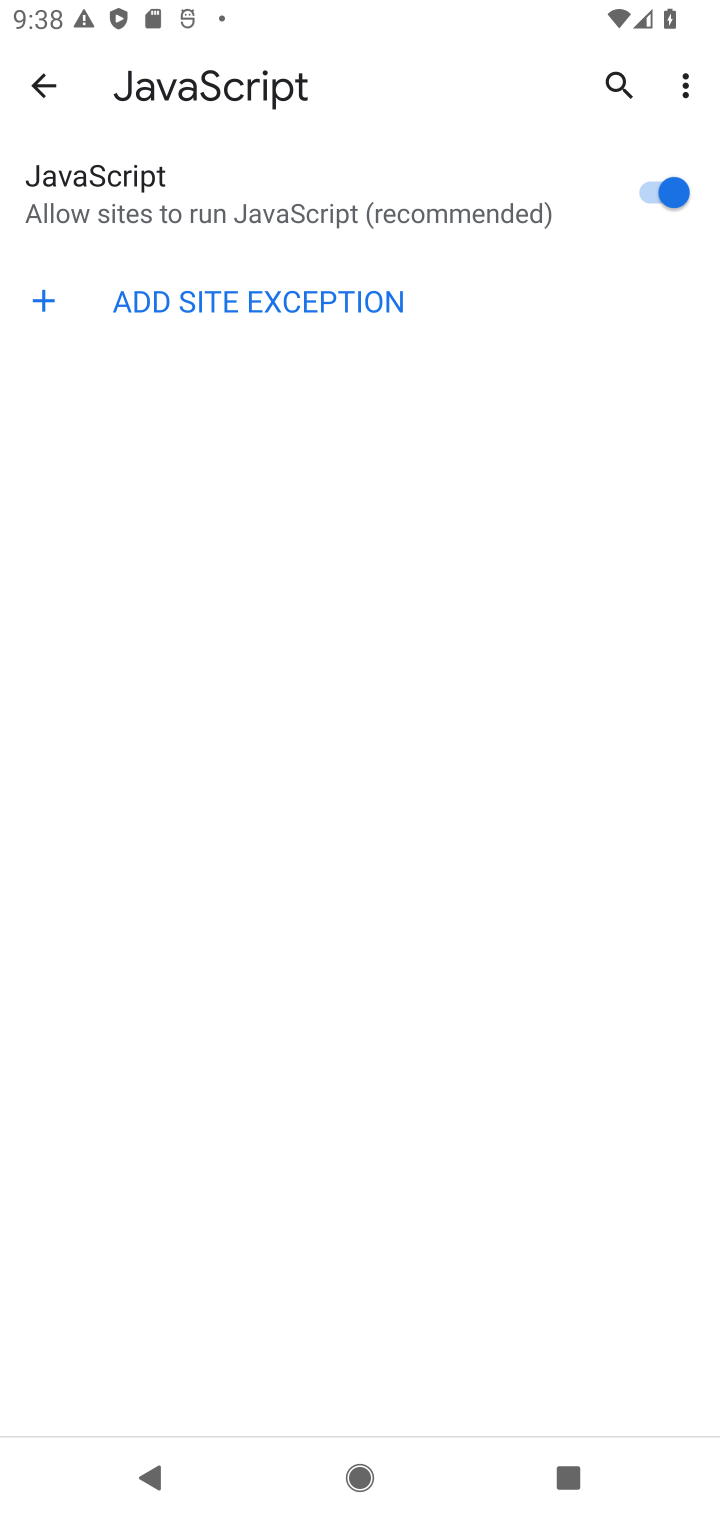
Step 28: task complete